Your task to perform on an android device: turn off sleep mode Image 0: 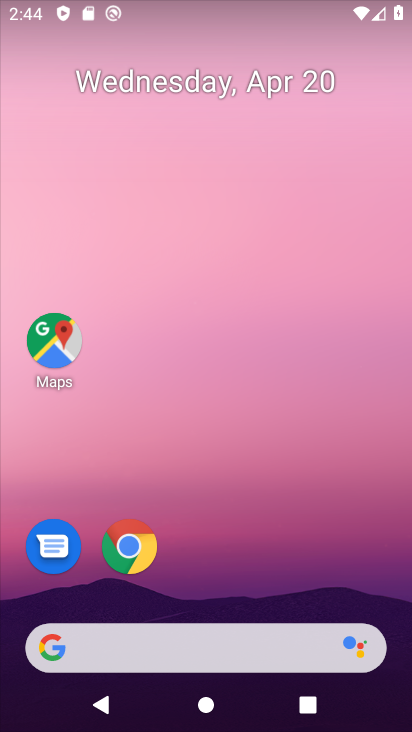
Step 0: drag from (188, 553) to (185, 73)
Your task to perform on an android device: turn off sleep mode Image 1: 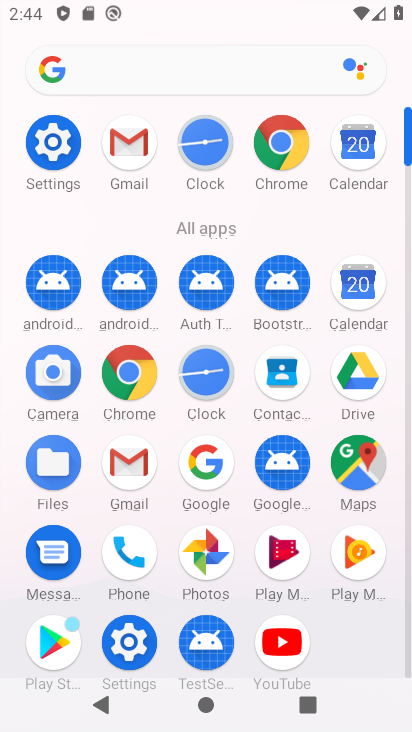
Step 1: click (71, 149)
Your task to perform on an android device: turn off sleep mode Image 2: 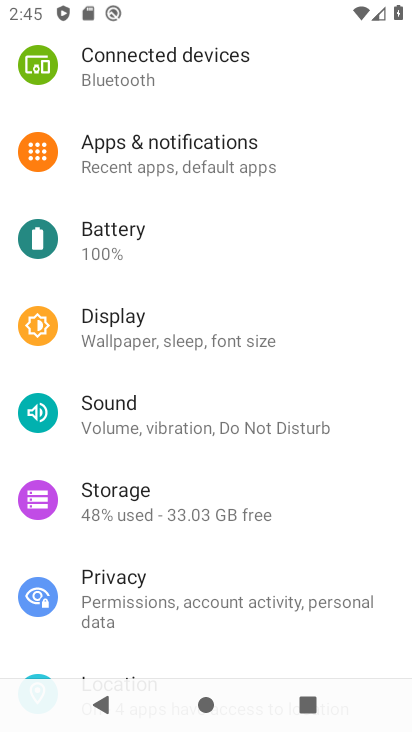
Step 2: click (192, 341)
Your task to perform on an android device: turn off sleep mode Image 3: 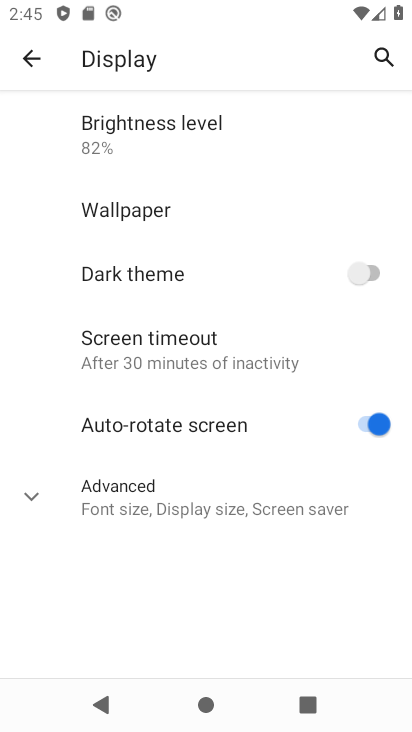
Step 3: click (26, 500)
Your task to perform on an android device: turn off sleep mode Image 4: 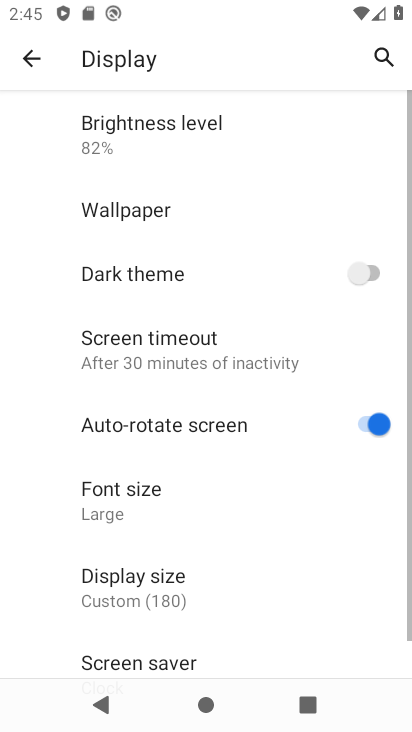
Step 4: task complete